Your task to perform on an android device: turn on the 12-hour format for clock Image 0: 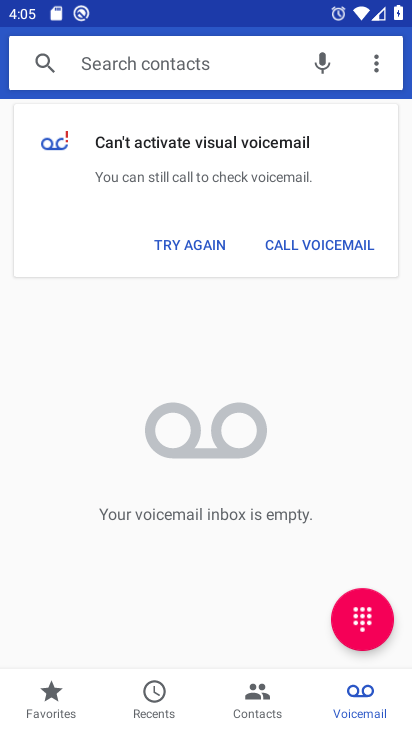
Step 0: press home button
Your task to perform on an android device: turn on the 12-hour format for clock Image 1: 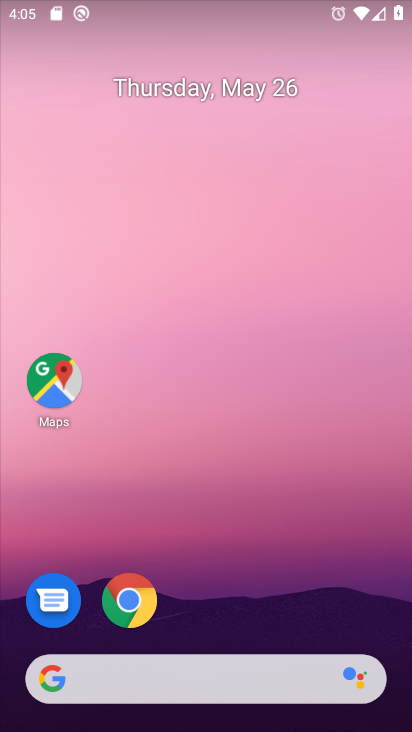
Step 1: drag from (220, 610) to (277, 137)
Your task to perform on an android device: turn on the 12-hour format for clock Image 2: 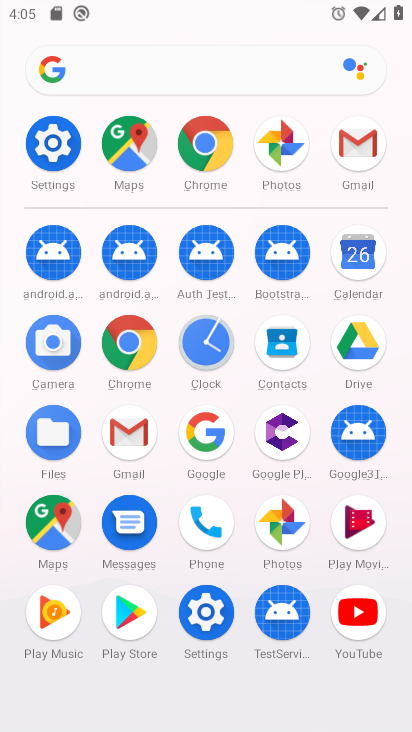
Step 2: click (58, 154)
Your task to perform on an android device: turn on the 12-hour format for clock Image 3: 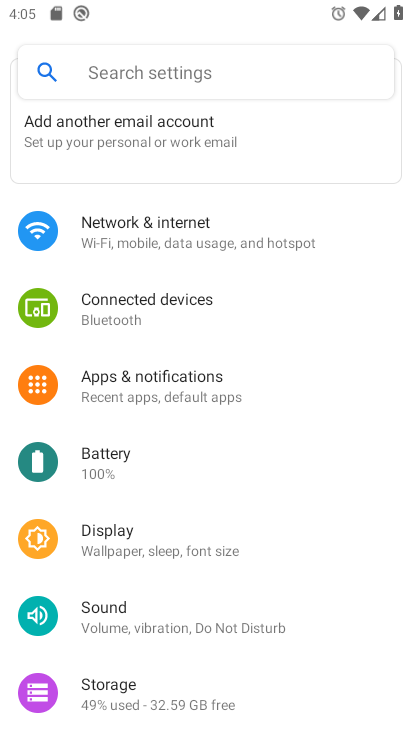
Step 3: drag from (192, 633) to (279, 281)
Your task to perform on an android device: turn on the 12-hour format for clock Image 4: 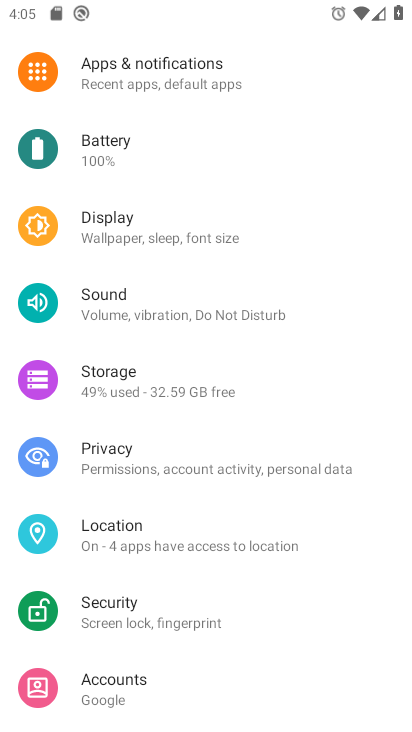
Step 4: drag from (195, 635) to (232, 376)
Your task to perform on an android device: turn on the 12-hour format for clock Image 5: 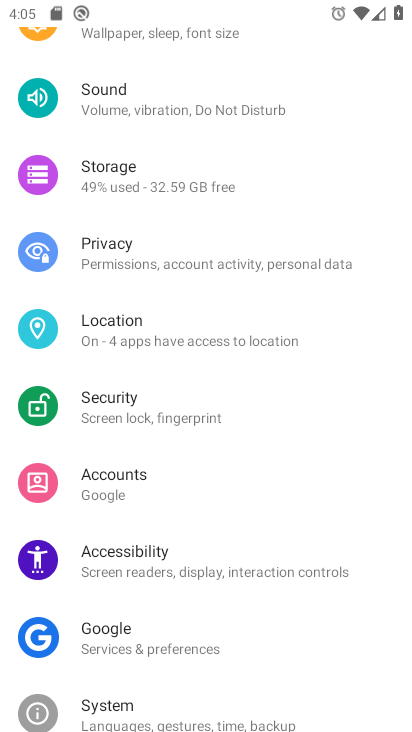
Step 5: drag from (136, 668) to (159, 491)
Your task to perform on an android device: turn on the 12-hour format for clock Image 6: 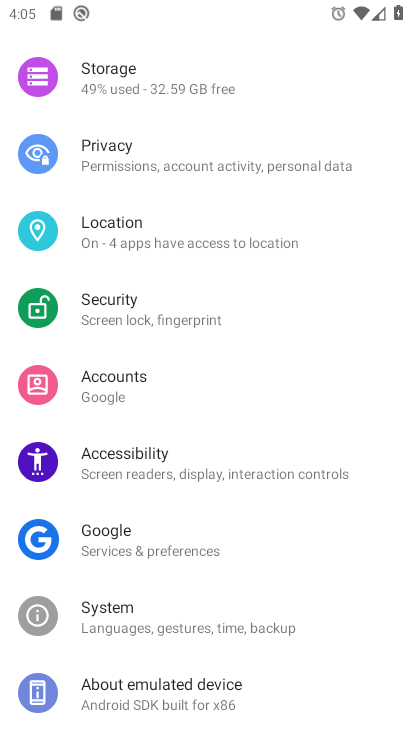
Step 6: click (145, 627)
Your task to perform on an android device: turn on the 12-hour format for clock Image 7: 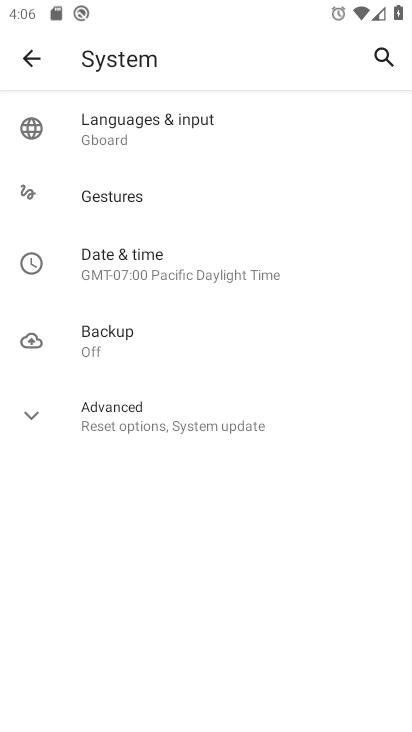
Step 7: click (184, 264)
Your task to perform on an android device: turn on the 12-hour format for clock Image 8: 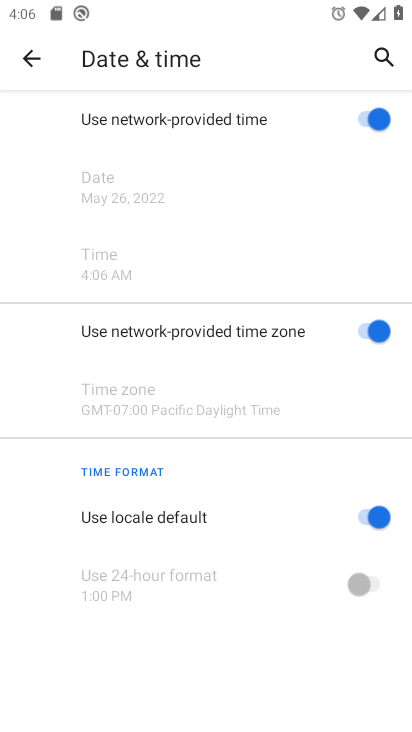
Step 8: task complete